Your task to perform on an android device: What's the weather going to be this weekend? Image 0: 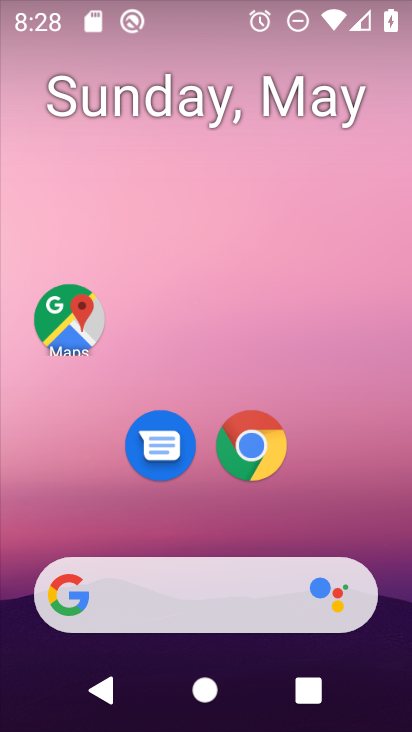
Step 0: drag from (272, 648) to (318, 124)
Your task to perform on an android device: What's the weather going to be this weekend? Image 1: 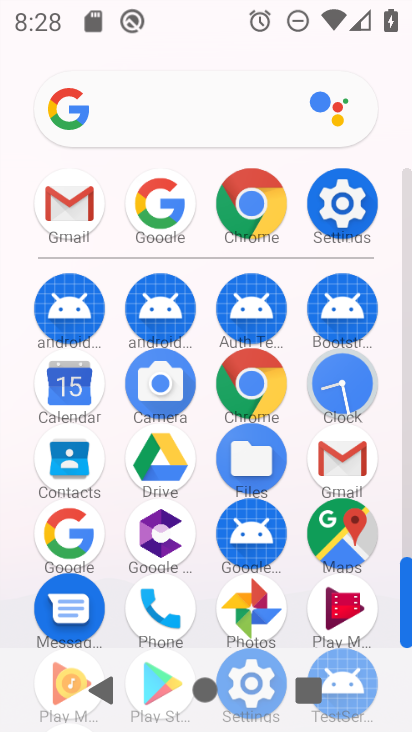
Step 1: drag from (187, 527) to (232, 214)
Your task to perform on an android device: What's the weather going to be this weekend? Image 2: 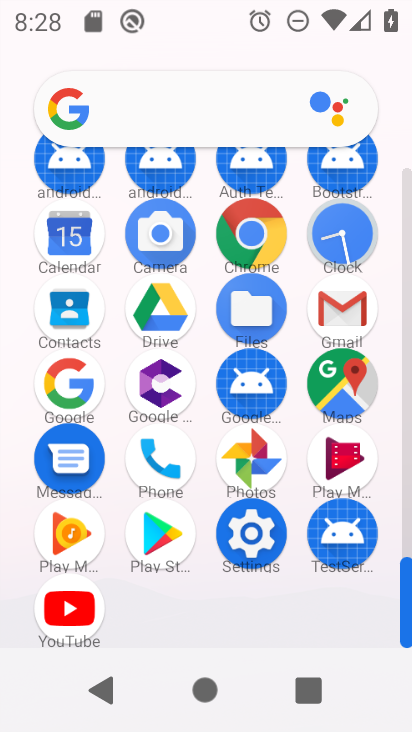
Step 2: click (67, 383)
Your task to perform on an android device: What's the weather going to be this weekend? Image 3: 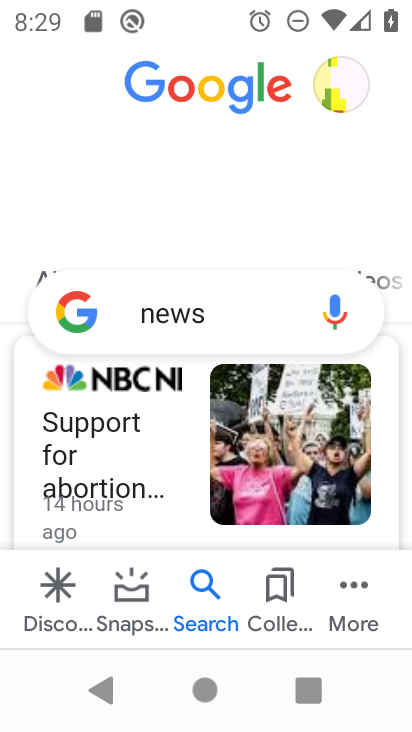
Step 3: click (279, 308)
Your task to perform on an android device: What's the weather going to be this weekend? Image 4: 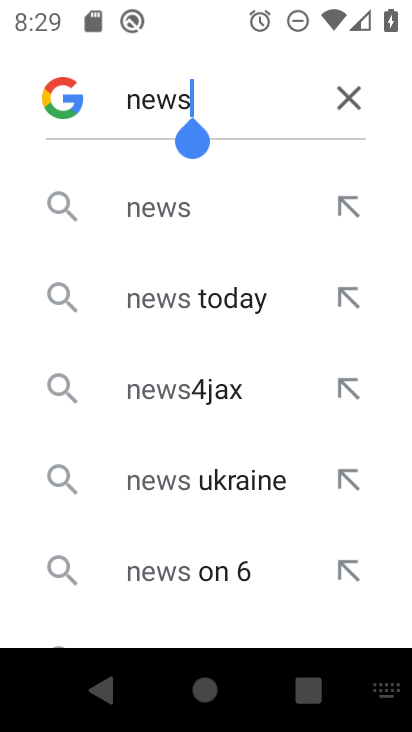
Step 4: click (348, 107)
Your task to perform on an android device: What's the weather going to be this weekend? Image 5: 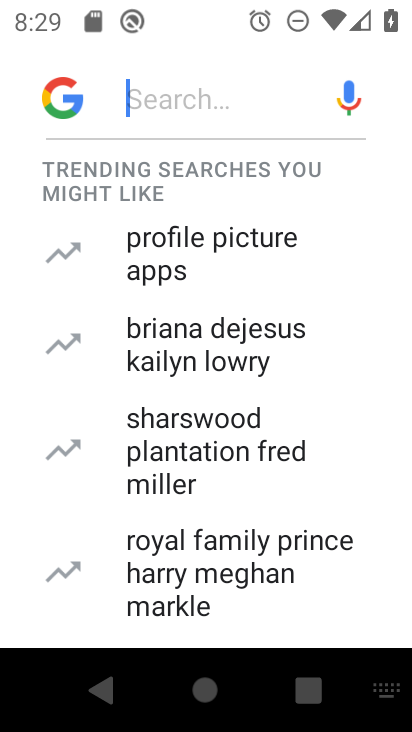
Step 5: type "weather"
Your task to perform on an android device: What's the weather going to be this weekend? Image 6: 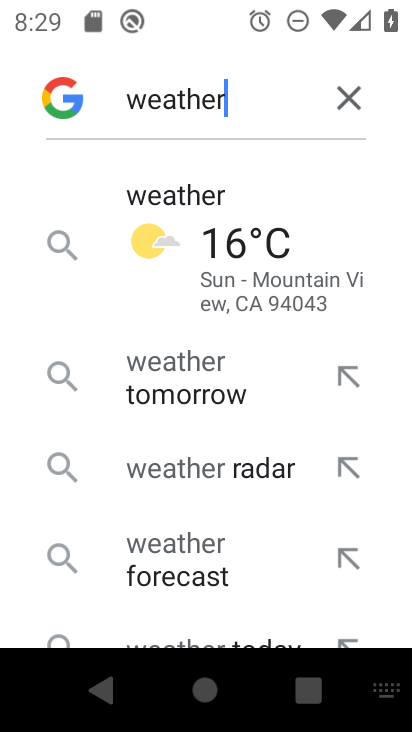
Step 6: click (225, 221)
Your task to perform on an android device: What's the weather going to be this weekend? Image 7: 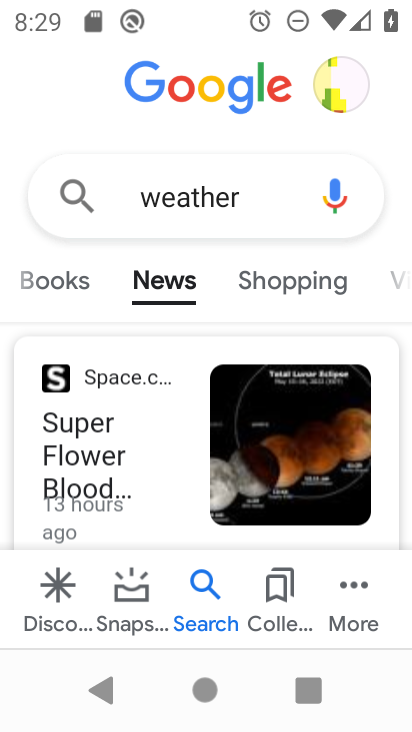
Step 7: task complete